Your task to perform on an android device: Open Yahoo.com Image 0: 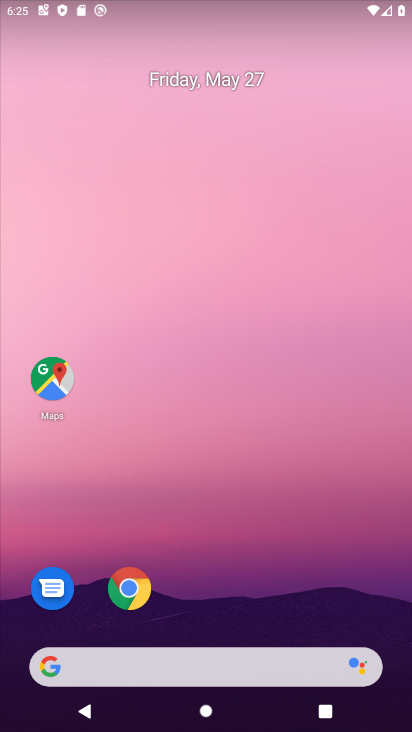
Step 0: drag from (174, 598) to (173, 52)
Your task to perform on an android device: Open Yahoo.com Image 1: 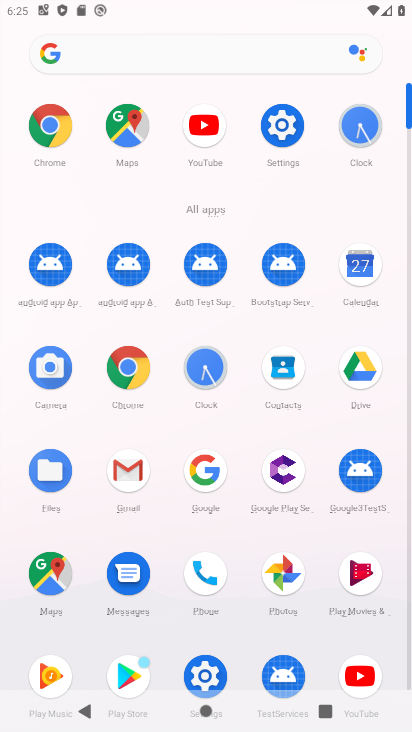
Step 1: click (123, 360)
Your task to perform on an android device: Open Yahoo.com Image 2: 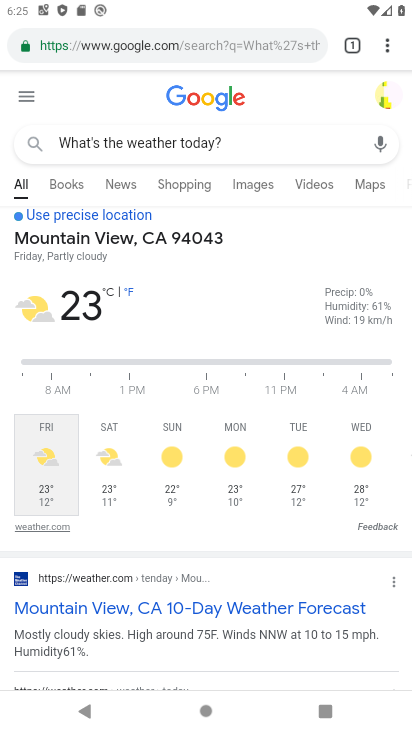
Step 2: click (252, 43)
Your task to perform on an android device: Open Yahoo.com Image 3: 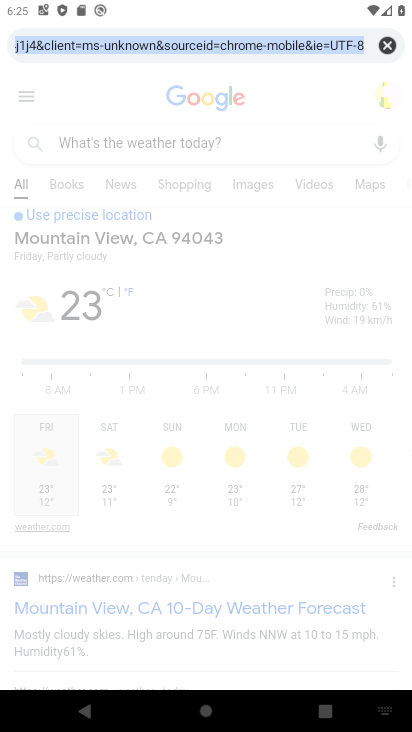
Step 3: click (388, 49)
Your task to perform on an android device: Open Yahoo.com Image 4: 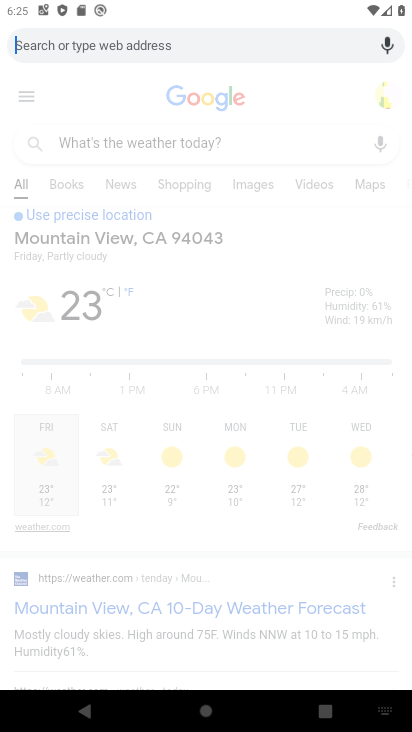
Step 4: type " Yahoo.com"
Your task to perform on an android device: Open Yahoo.com Image 5: 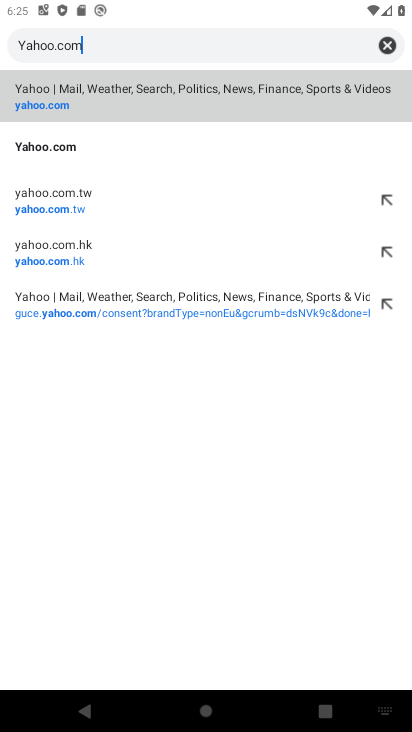
Step 5: click (43, 99)
Your task to perform on an android device: Open Yahoo.com Image 6: 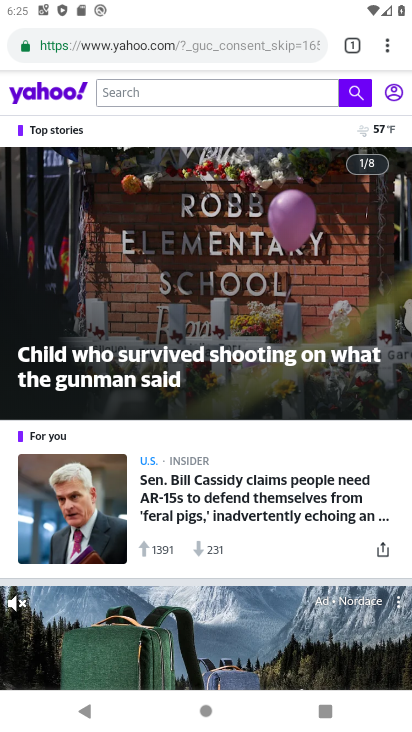
Step 6: task complete